Your task to perform on an android device: Search for the best gaming mouses on Amazon. Image 0: 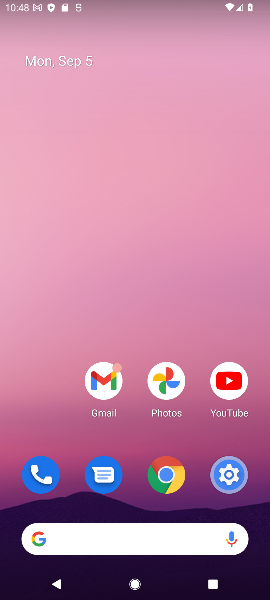
Step 0: click (165, 543)
Your task to perform on an android device: Search for the best gaming mouses on Amazon. Image 1: 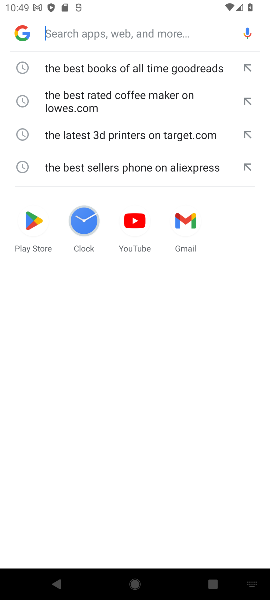
Step 1: type "the best gaming mouses on Amazon."
Your task to perform on an android device: Search for the best gaming mouses on Amazon. Image 2: 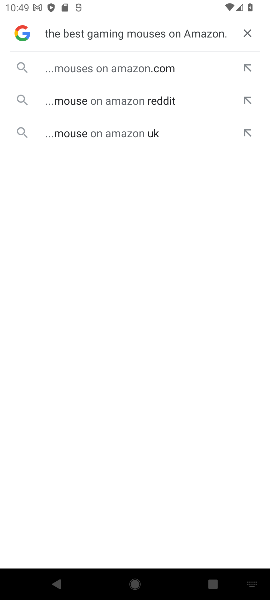
Step 2: click (160, 63)
Your task to perform on an android device: Search for the best gaming mouses on Amazon. Image 3: 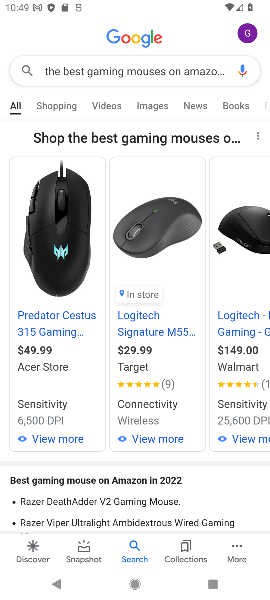
Step 3: task complete